Your task to perform on an android device: toggle javascript in the chrome app Image 0: 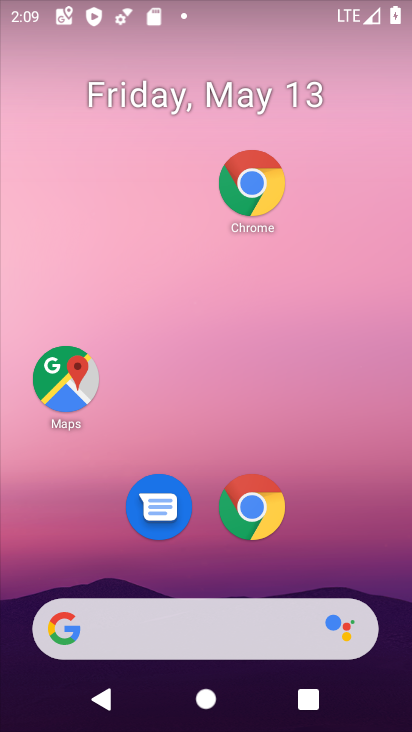
Step 0: drag from (350, 722) to (178, 239)
Your task to perform on an android device: toggle javascript in the chrome app Image 1: 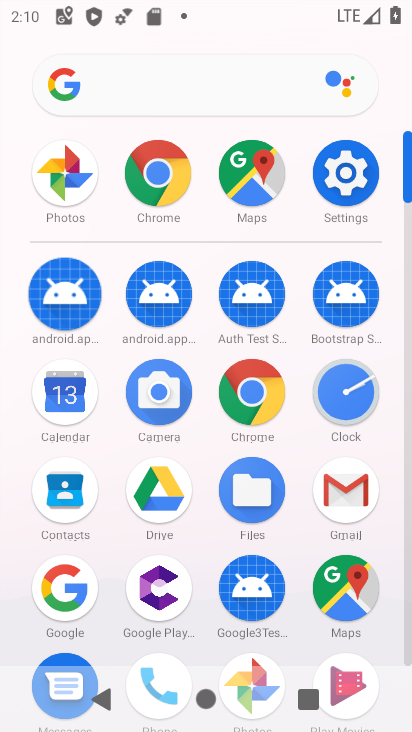
Step 1: click (155, 182)
Your task to perform on an android device: toggle javascript in the chrome app Image 2: 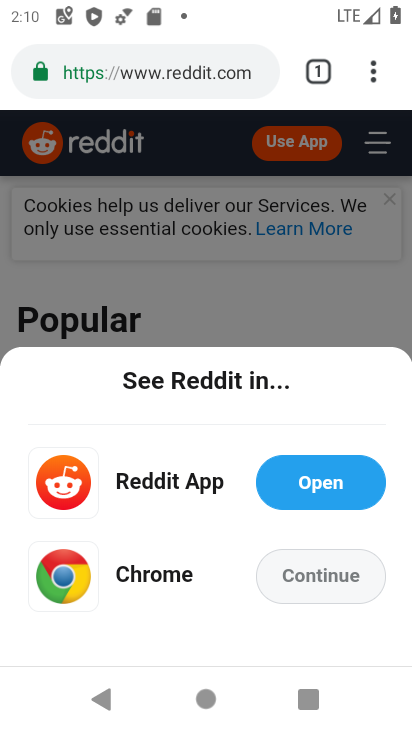
Step 2: click (375, 78)
Your task to perform on an android device: toggle javascript in the chrome app Image 3: 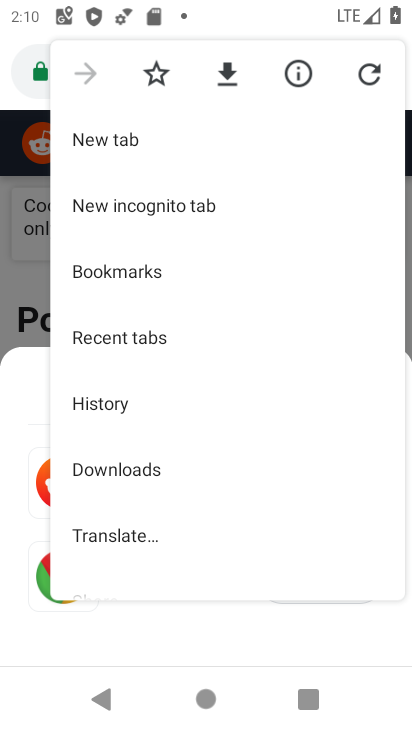
Step 3: drag from (162, 463) to (92, 98)
Your task to perform on an android device: toggle javascript in the chrome app Image 4: 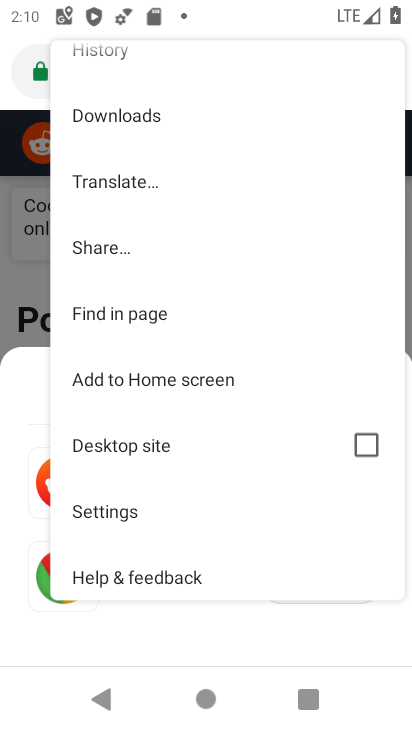
Step 4: click (101, 510)
Your task to perform on an android device: toggle javascript in the chrome app Image 5: 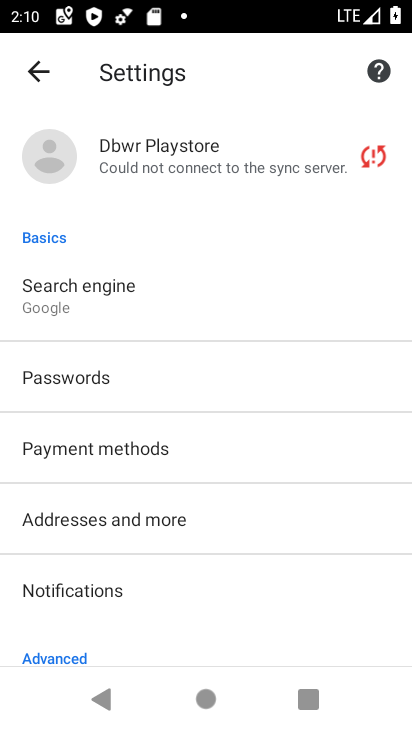
Step 5: drag from (168, 574) to (92, 21)
Your task to perform on an android device: toggle javascript in the chrome app Image 6: 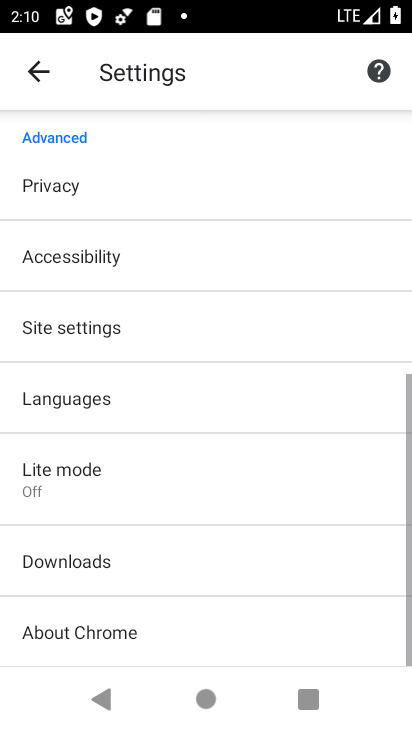
Step 6: click (137, 102)
Your task to perform on an android device: toggle javascript in the chrome app Image 7: 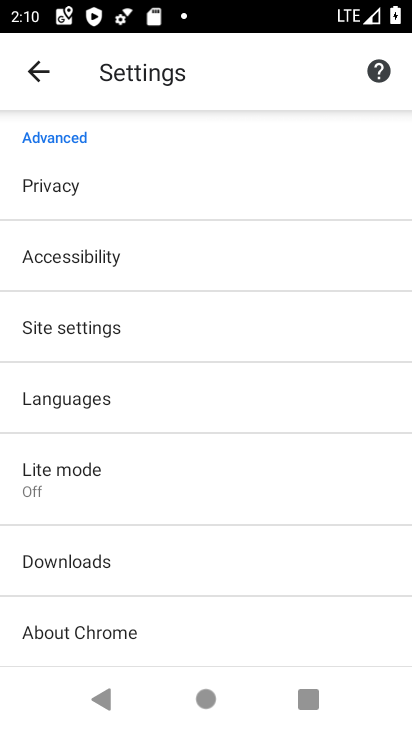
Step 7: drag from (130, 578) to (66, 135)
Your task to perform on an android device: toggle javascript in the chrome app Image 8: 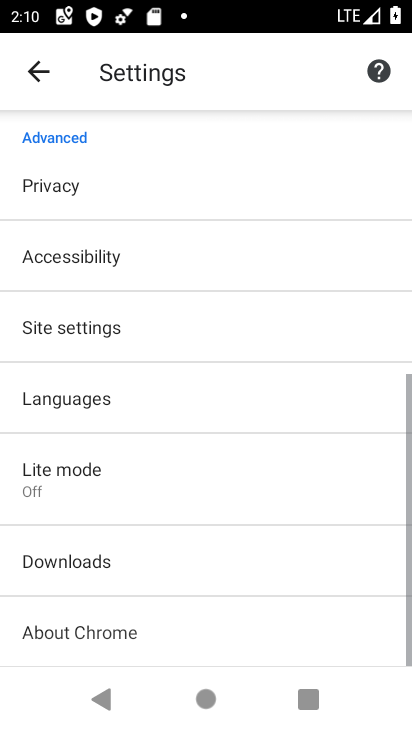
Step 8: click (61, 329)
Your task to perform on an android device: toggle javascript in the chrome app Image 9: 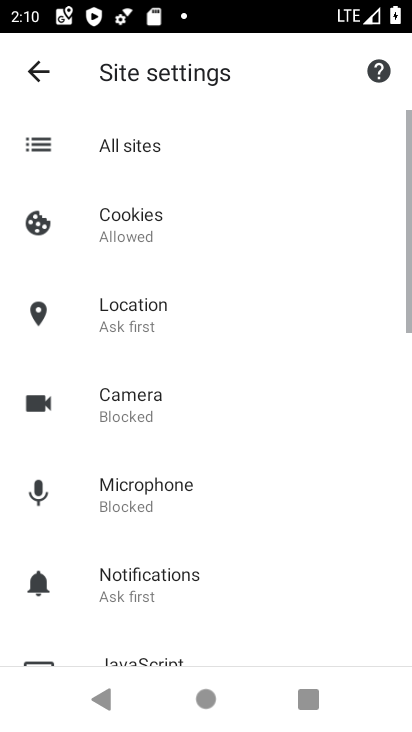
Step 9: click (61, 329)
Your task to perform on an android device: toggle javascript in the chrome app Image 10: 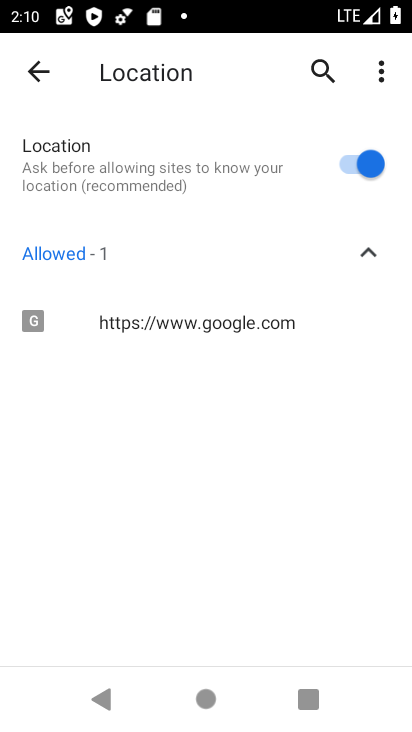
Step 10: click (31, 68)
Your task to perform on an android device: toggle javascript in the chrome app Image 11: 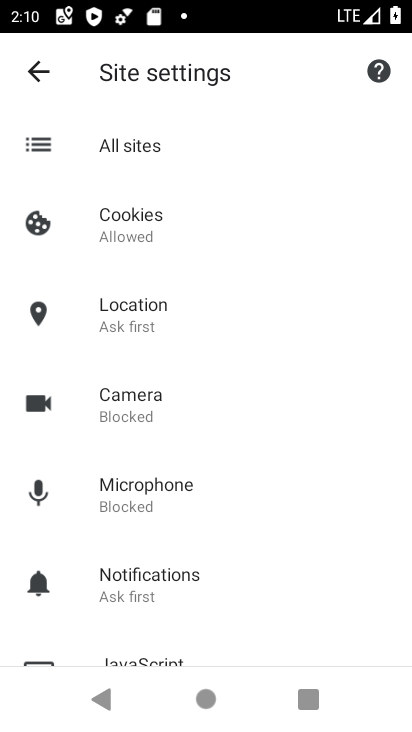
Step 11: drag from (159, 580) to (137, 116)
Your task to perform on an android device: toggle javascript in the chrome app Image 12: 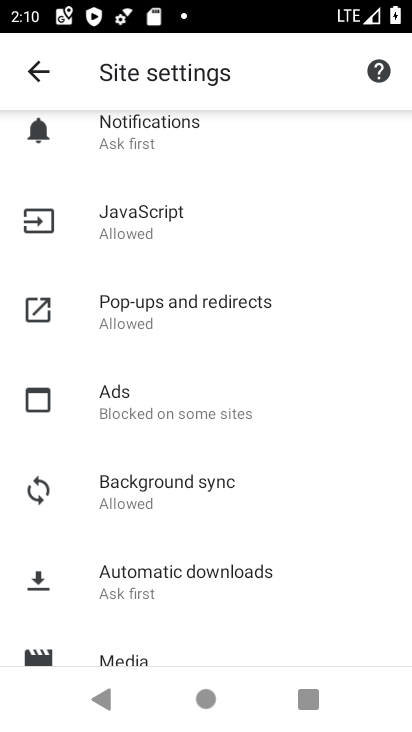
Step 12: click (123, 226)
Your task to perform on an android device: toggle javascript in the chrome app Image 13: 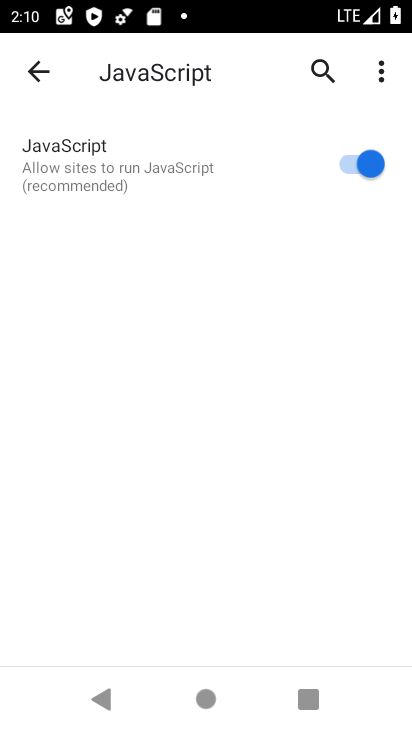
Step 13: click (363, 163)
Your task to perform on an android device: toggle javascript in the chrome app Image 14: 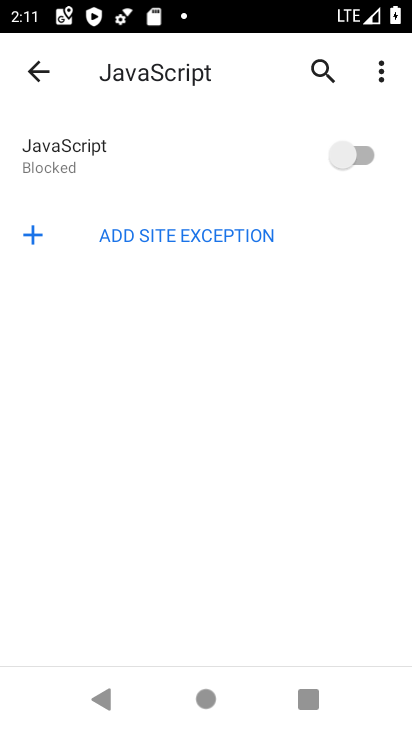
Step 14: task complete